Your task to perform on an android device: all mails in gmail Image 0: 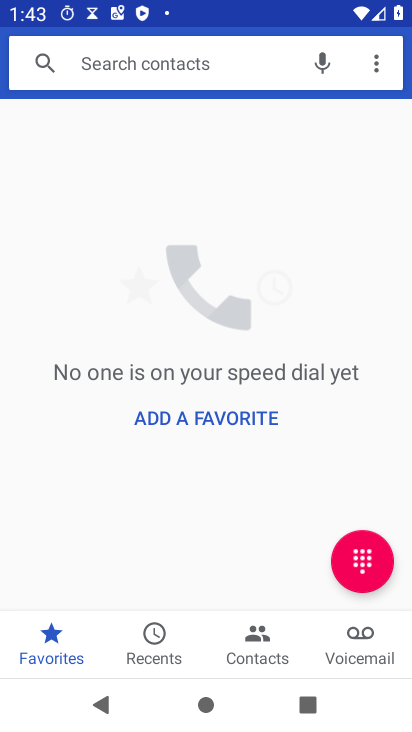
Step 0: press home button
Your task to perform on an android device: all mails in gmail Image 1: 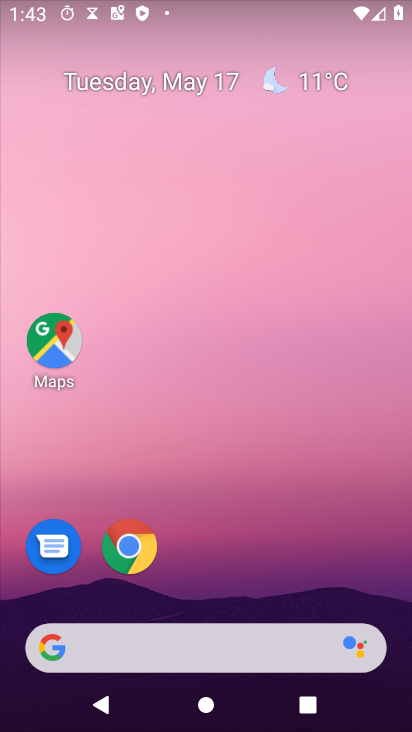
Step 1: drag from (162, 613) to (309, 104)
Your task to perform on an android device: all mails in gmail Image 2: 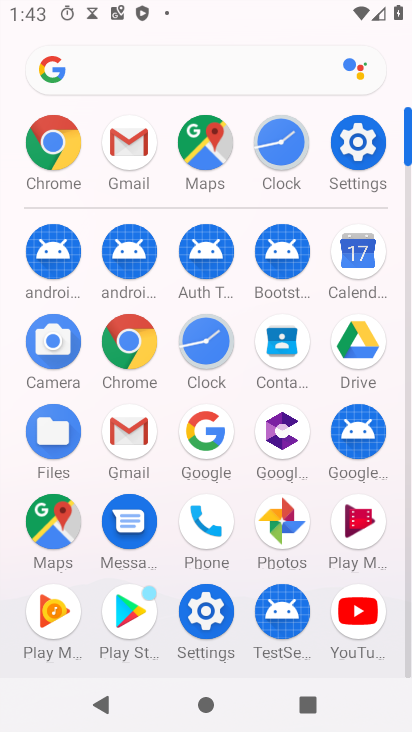
Step 2: click (133, 439)
Your task to perform on an android device: all mails in gmail Image 3: 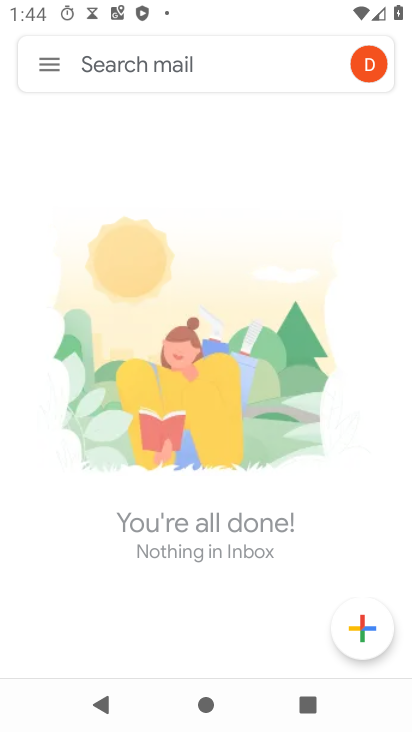
Step 3: click (46, 60)
Your task to perform on an android device: all mails in gmail Image 4: 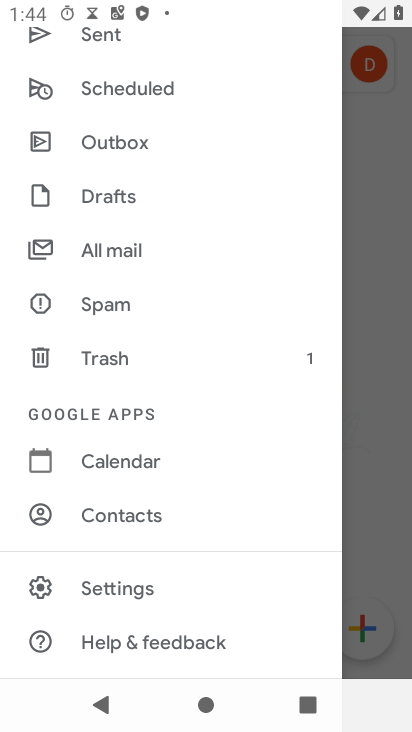
Step 4: click (131, 253)
Your task to perform on an android device: all mails in gmail Image 5: 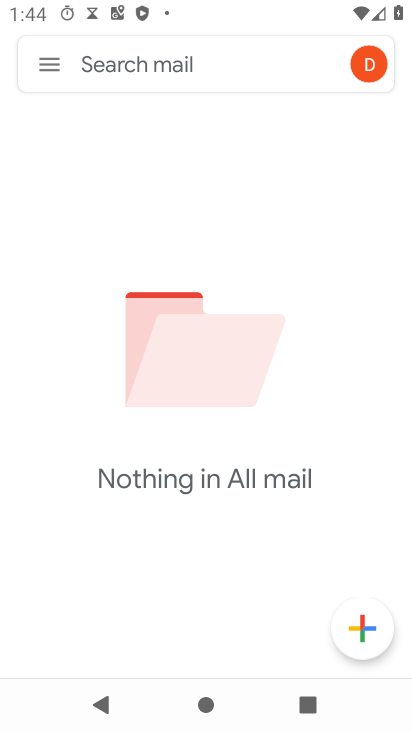
Step 5: task complete